Your task to perform on an android device: turn on the 24-hour format for clock Image 0: 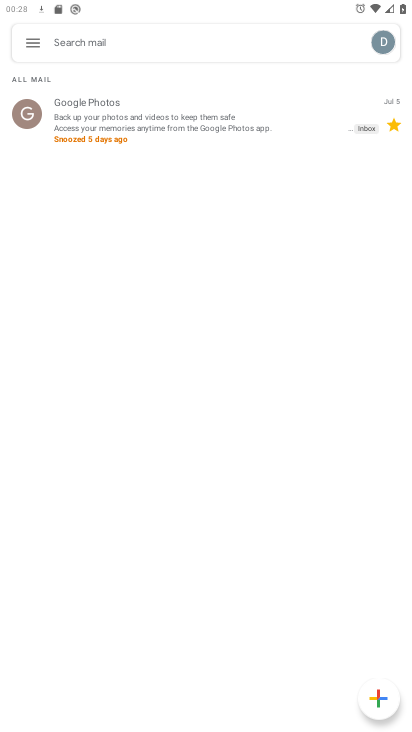
Step 0: press home button
Your task to perform on an android device: turn on the 24-hour format for clock Image 1: 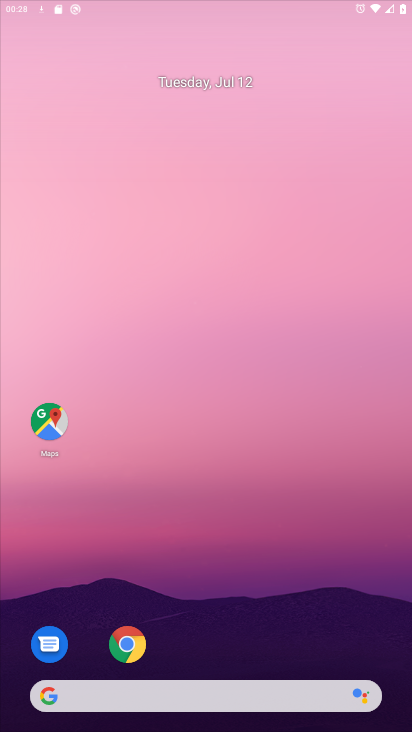
Step 1: drag from (237, 605) to (227, 324)
Your task to perform on an android device: turn on the 24-hour format for clock Image 2: 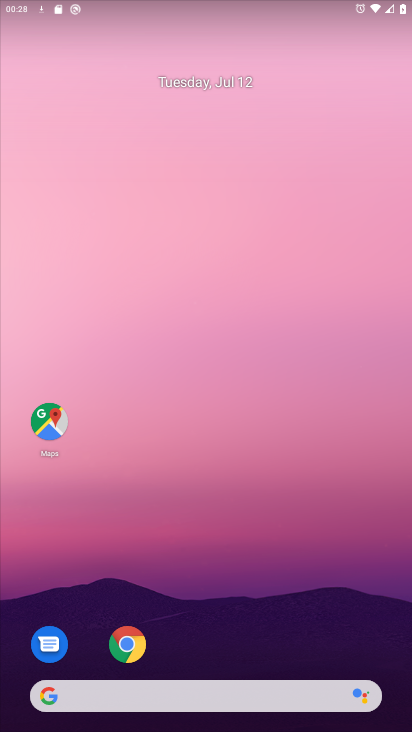
Step 2: drag from (219, 635) to (214, 316)
Your task to perform on an android device: turn on the 24-hour format for clock Image 3: 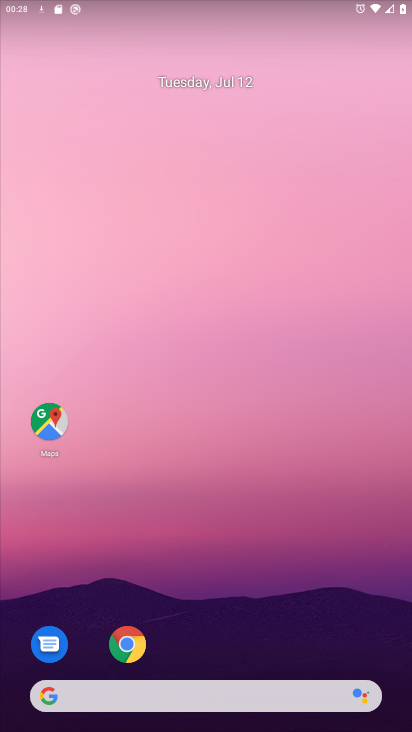
Step 3: drag from (248, 639) to (272, 213)
Your task to perform on an android device: turn on the 24-hour format for clock Image 4: 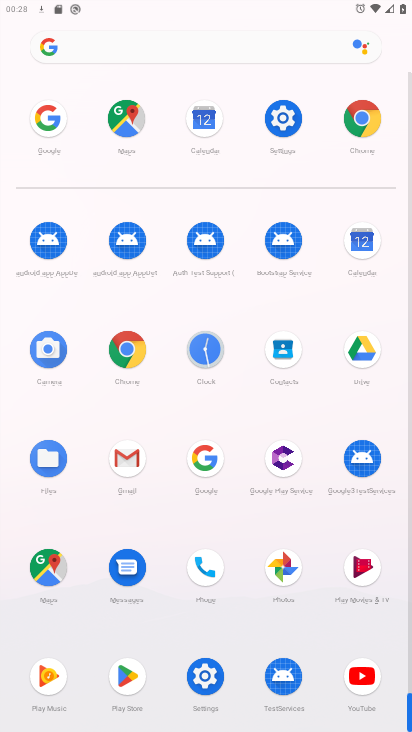
Step 4: click (193, 346)
Your task to perform on an android device: turn on the 24-hour format for clock Image 5: 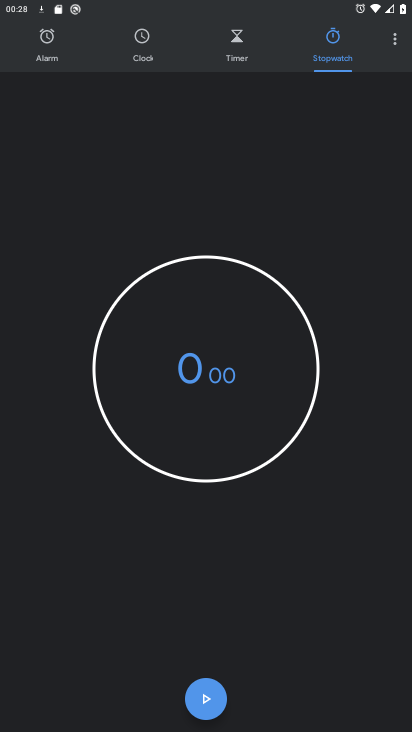
Step 5: click (399, 34)
Your task to perform on an android device: turn on the 24-hour format for clock Image 6: 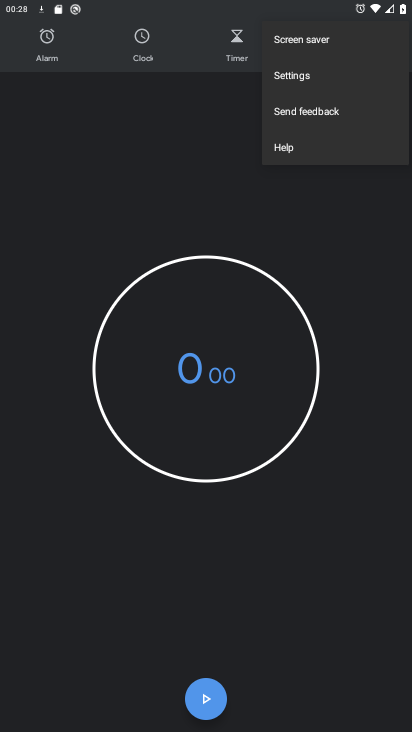
Step 6: click (311, 83)
Your task to perform on an android device: turn on the 24-hour format for clock Image 7: 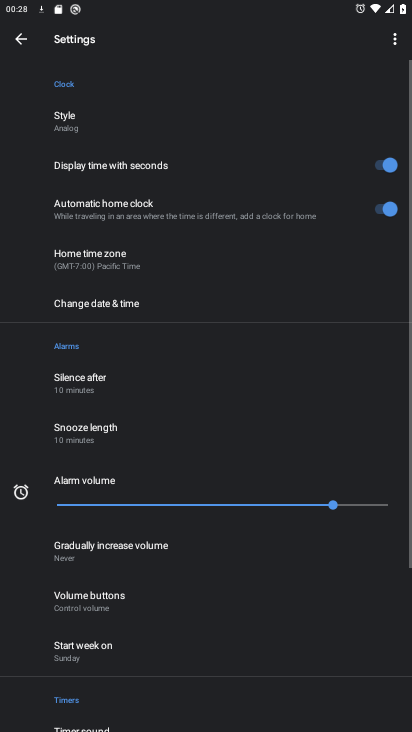
Step 7: click (168, 304)
Your task to perform on an android device: turn on the 24-hour format for clock Image 8: 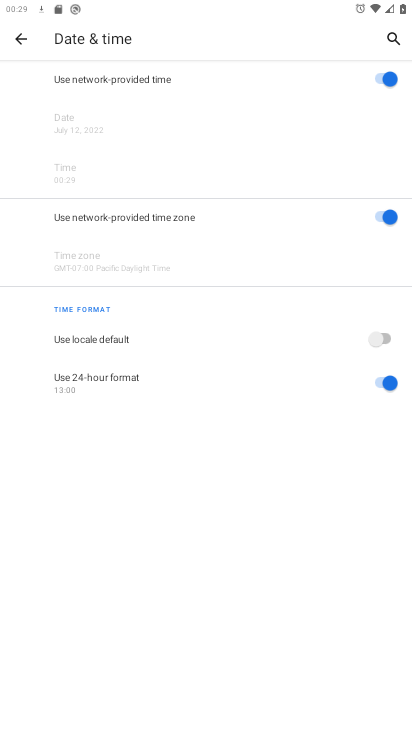
Step 8: task complete